Your task to perform on an android device: Play the last video I watched on Youtube Image 0: 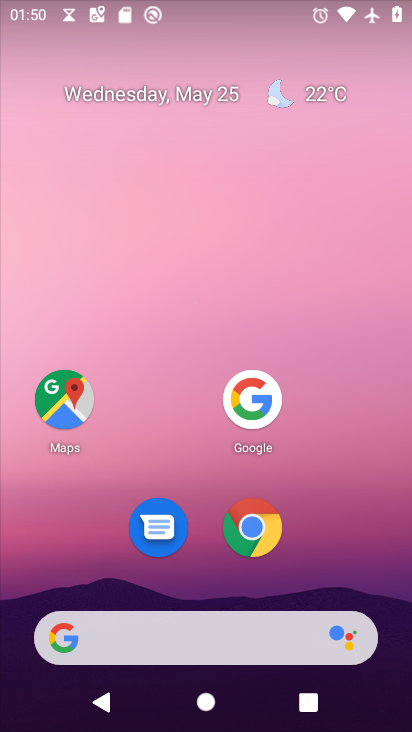
Step 0: press home button
Your task to perform on an android device: Play the last video I watched on Youtube Image 1: 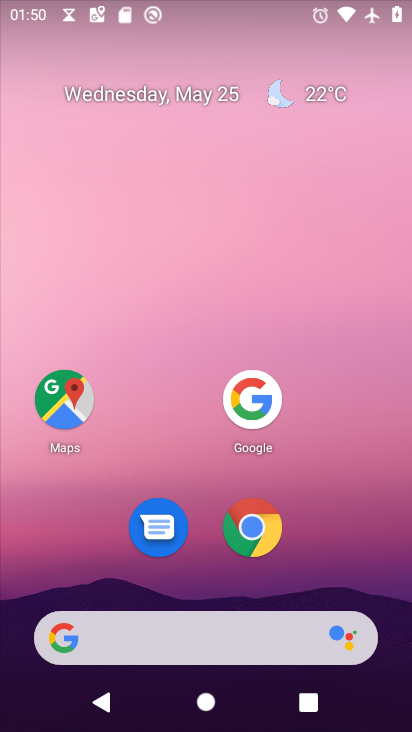
Step 1: drag from (261, 311) to (270, 216)
Your task to perform on an android device: Play the last video I watched on Youtube Image 2: 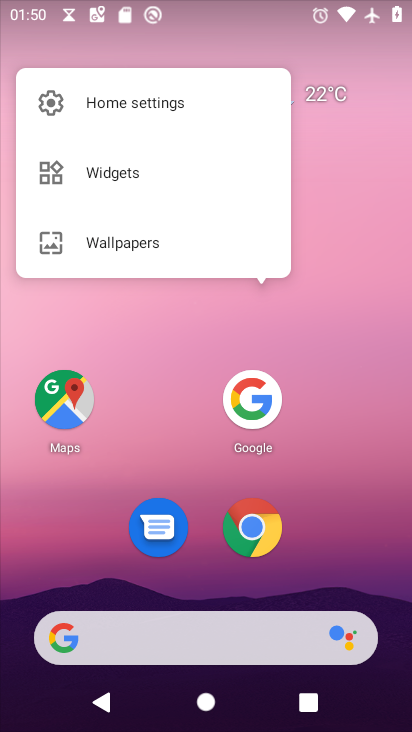
Step 2: drag from (193, 624) to (339, 19)
Your task to perform on an android device: Play the last video I watched on Youtube Image 3: 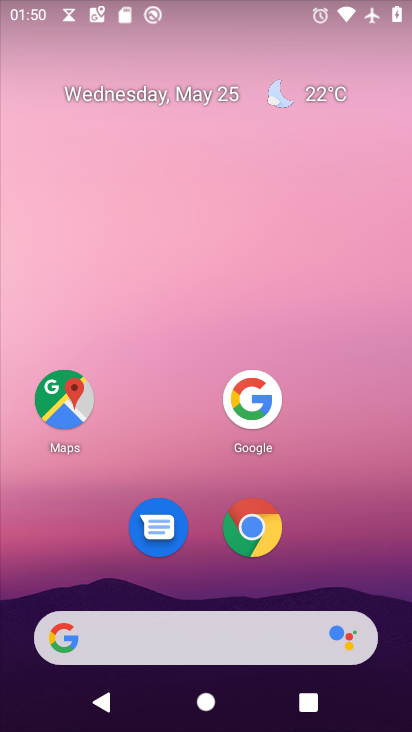
Step 3: drag from (220, 634) to (323, 77)
Your task to perform on an android device: Play the last video I watched on Youtube Image 4: 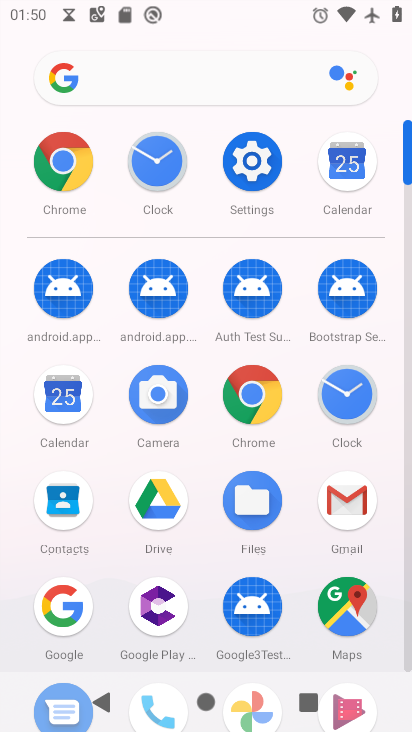
Step 4: drag from (220, 562) to (279, 195)
Your task to perform on an android device: Play the last video I watched on Youtube Image 5: 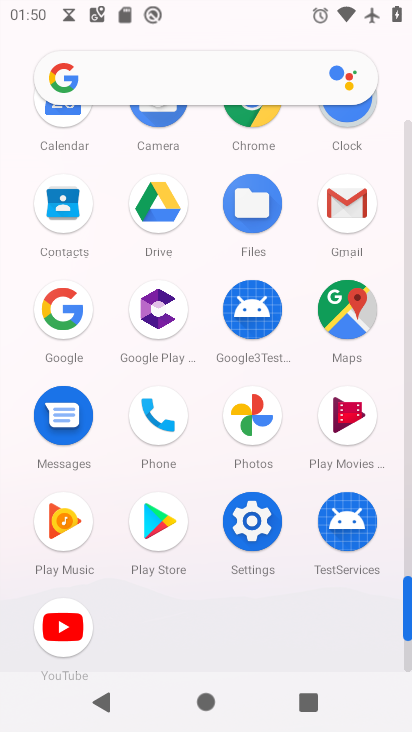
Step 5: click (59, 629)
Your task to perform on an android device: Play the last video I watched on Youtube Image 6: 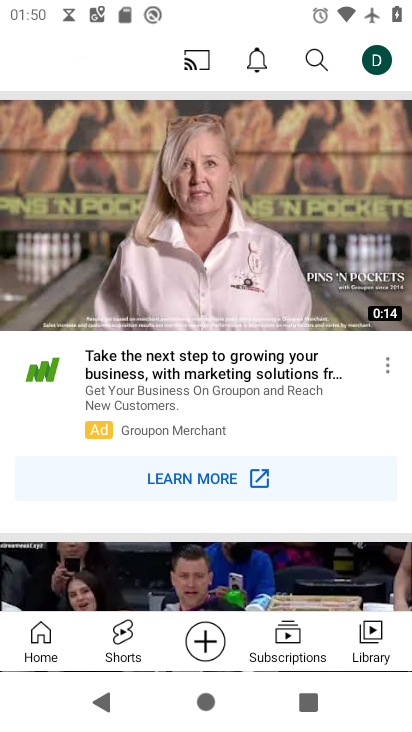
Step 6: click (379, 630)
Your task to perform on an android device: Play the last video I watched on Youtube Image 7: 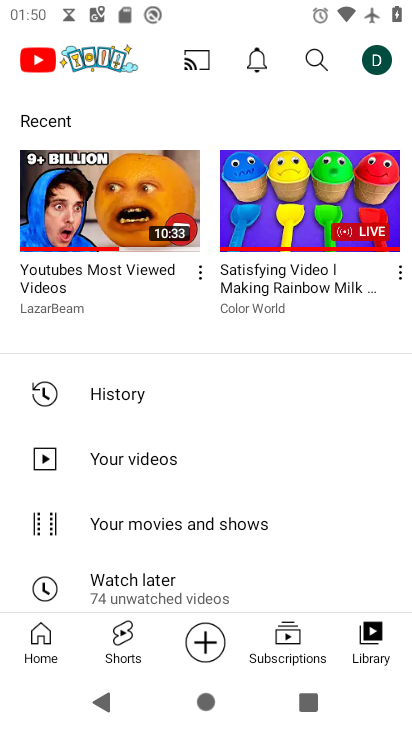
Step 7: click (106, 398)
Your task to perform on an android device: Play the last video I watched on Youtube Image 8: 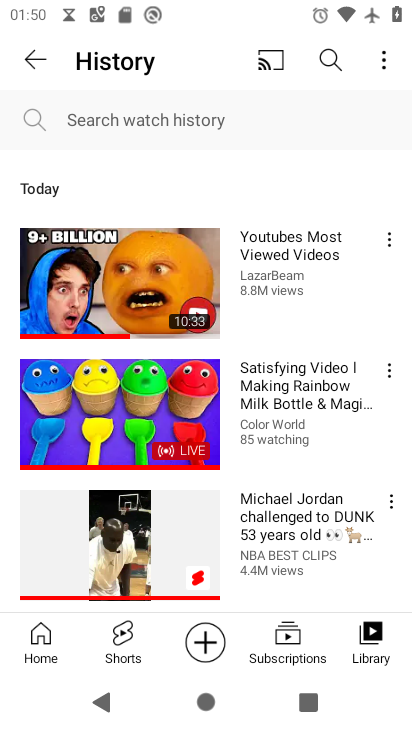
Step 8: click (121, 282)
Your task to perform on an android device: Play the last video I watched on Youtube Image 9: 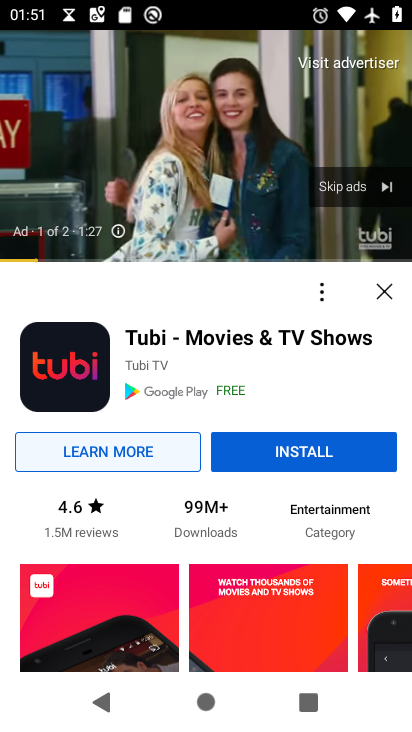
Step 9: click (198, 130)
Your task to perform on an android device: Play the last video I watched on Youtube Image 10: 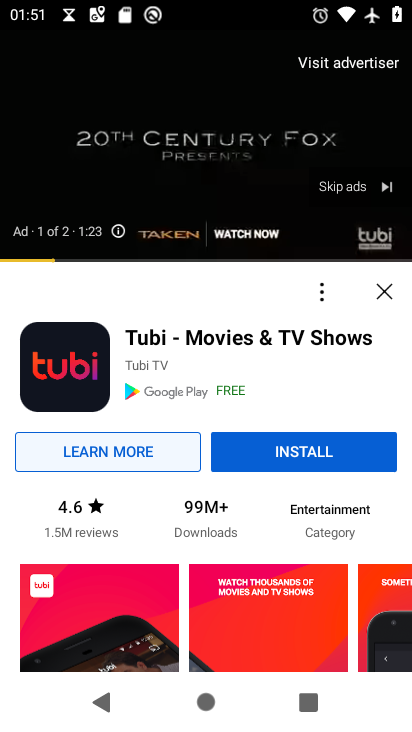
Step 10: click (337, 186)
Your task to perform on an android device: Play the last video I watched on Youtube Image 11: 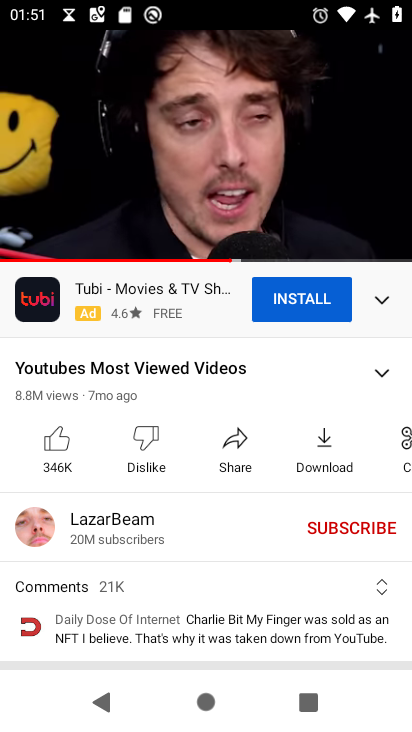
Step 11: click (213, 122)
Your task to perform on an android device: Play the last video I watched on Youtube Image 12: 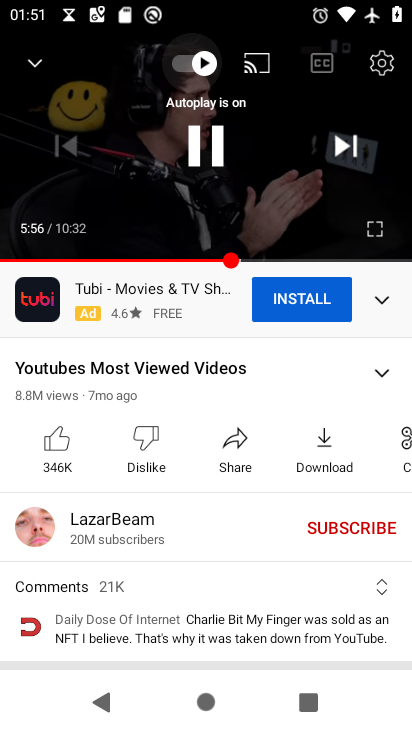
Step 12: click (214, 132)
Your task to perform on an android device: Play the last video I watched on Youtube Image 13: 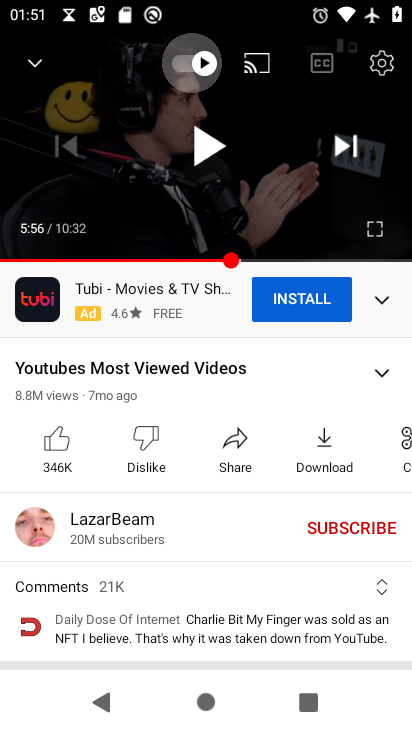
Step 13: task complete